Your task to perform on an android device: open device folders in google photos Image 0: 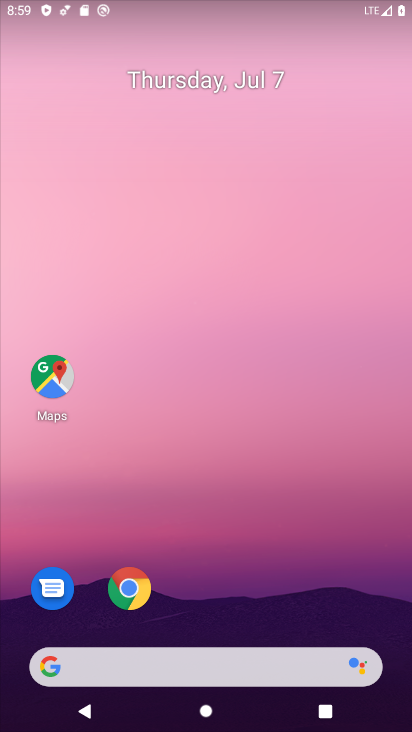
Step 0: drag from (282, 601) to (273, 0)
Your task to perform on an android device: open device folders in google photos Image 1: 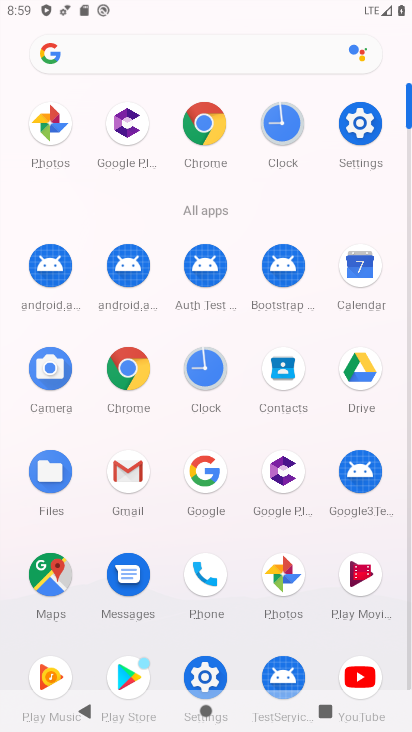
Step 1: click (52, 114)
Your task to perform on an android device: open device folders in google photos Image 2: 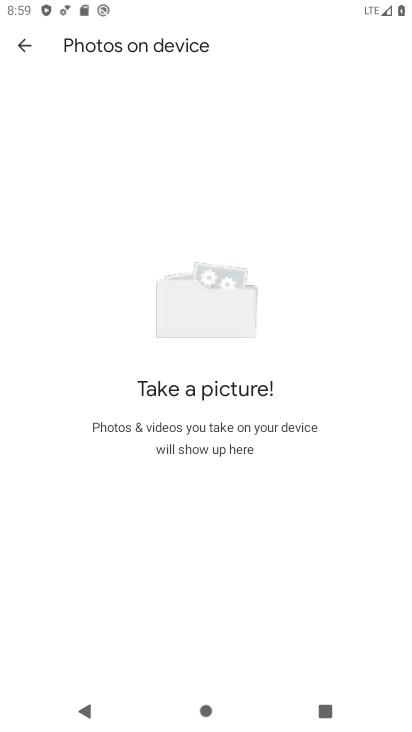
Step 2: task complete